Your task to perform on an android device: See recent photos Image 0: 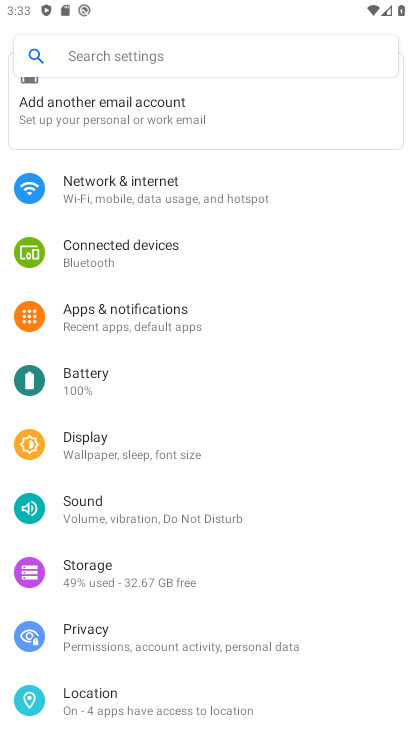
Step 0: press home button
Your task to perform on an android device: See recent photos Image 1: 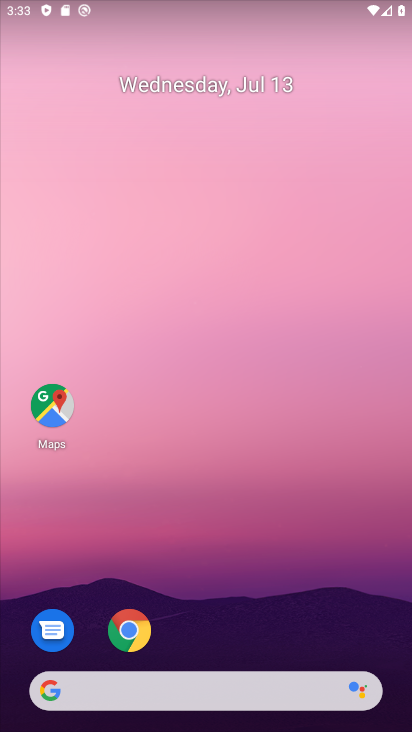
Step 1: drag from (236, 547) to (239, 145)
Your task to perform on an android device: See recent photos Image 2: 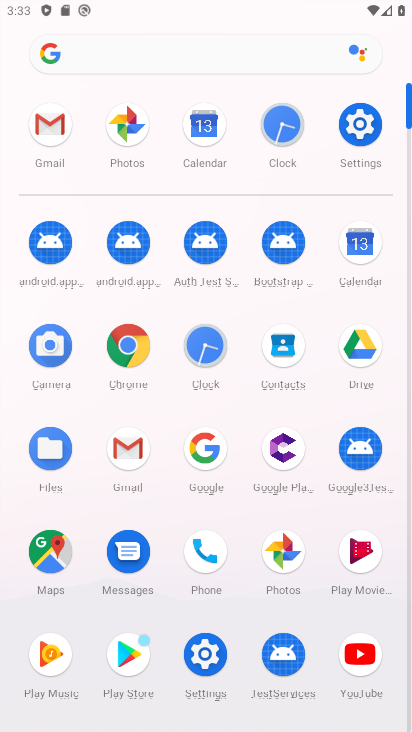
Step 2: click (126, 123)
Your task to perform on an android device: See recent photos Image 3: 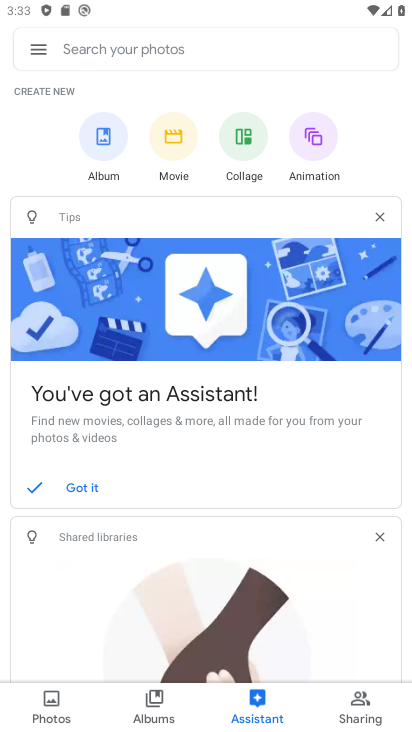
Step 3: click (48, 698)
Your task to perform on an android device: See recent photos Image 4: 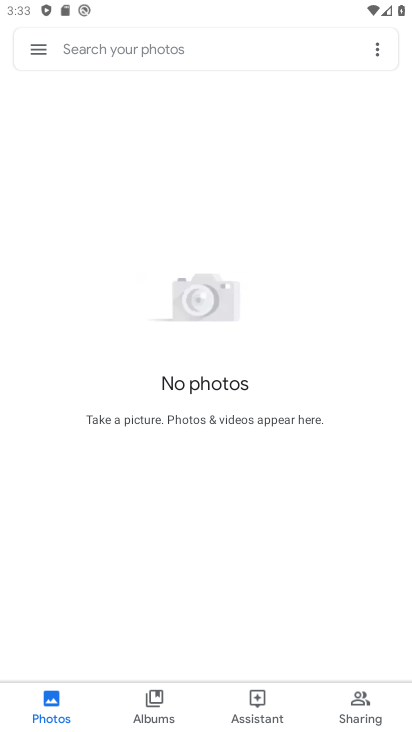
Step 4: task complete